Your task to perform on an android device: delete the emails in spam in the gmail app Image 0: 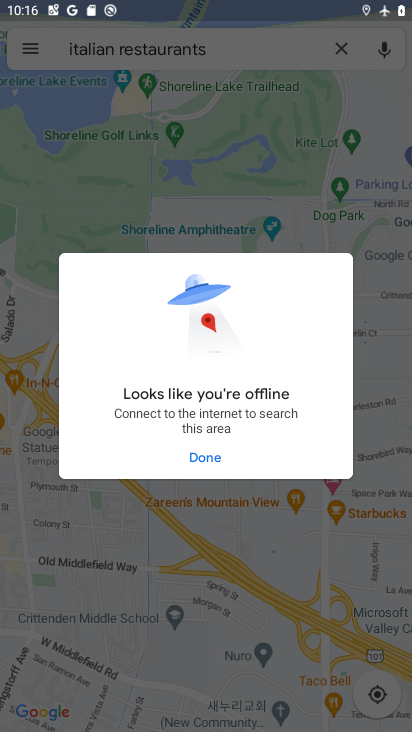
Step 0: press home button
Your task to perform on an android device: delete the emails in spam in the gmail app Image 1: 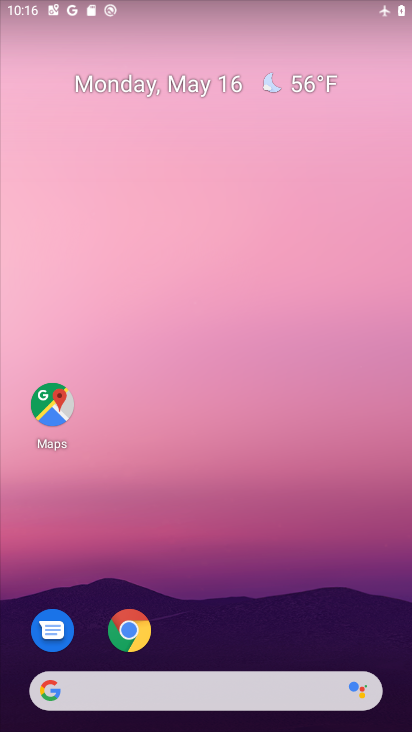
Step 1: drag from (238, 558) to (257, 75)
Your task to perform on an android device: delete the emails in spam in the gmail app Image 2: 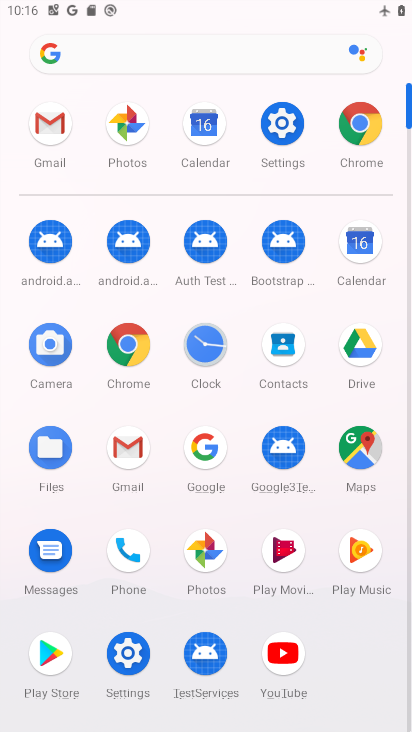
Step 2: click (55, 115)
Your task to perform on an android device: delete the emails in spam in the gmail app Image 3: 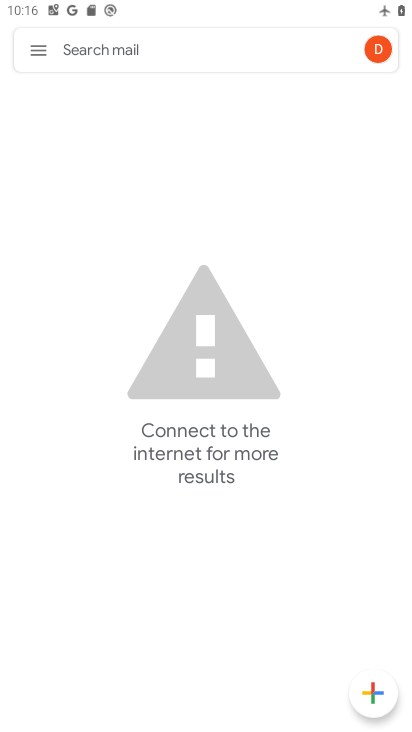
Step 3: click (39, 45)
Your task to perform on an android device: delete the emails in spam in the gmail app Image 4: 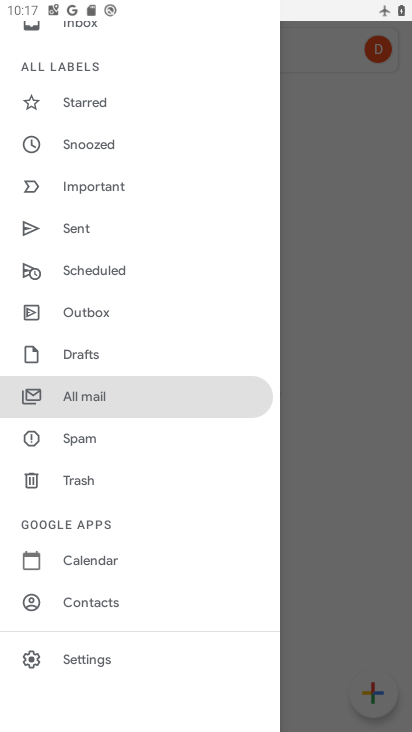
Step 4: click (111, 433)
Your task to perform on an android device: delete the emails in spam in the gmail app Image 5: 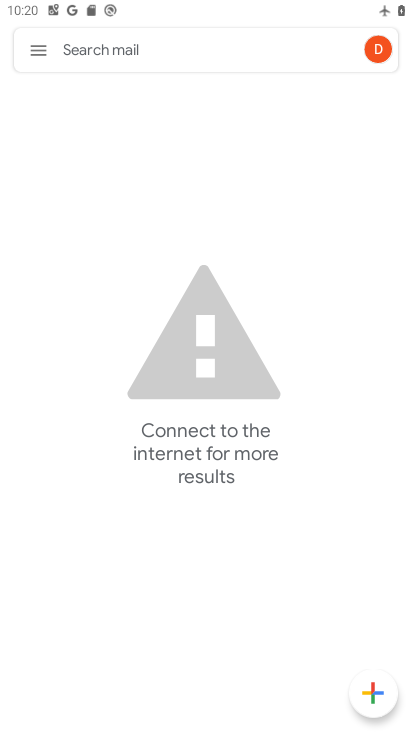
Step 5: task complete